Your task to perform on an android device: allow cookies in the chrome app Image 0: 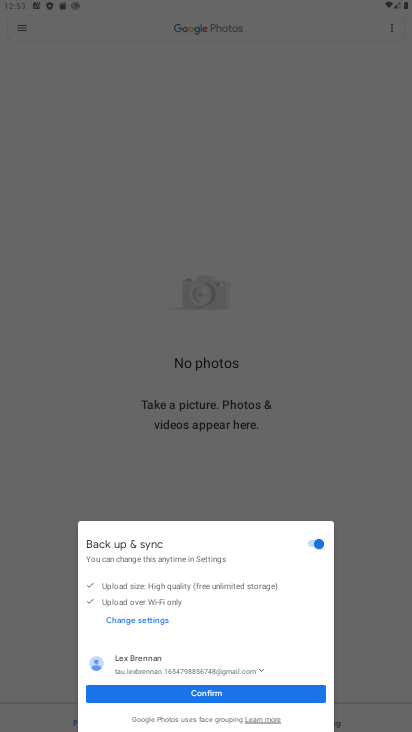
Step 0: click (231, 690)
Your task to perform on an android device: allow cookies in the chrome app Image 1: 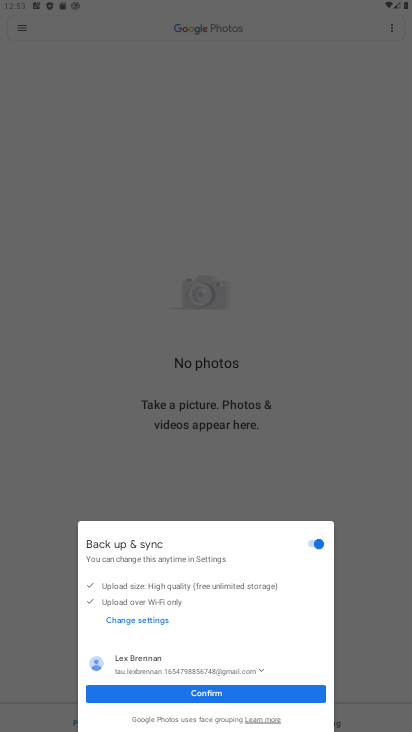
Step 1: click (233, 689)
Your task to perform on an android device: allow cookies in the chrome app Image 2: 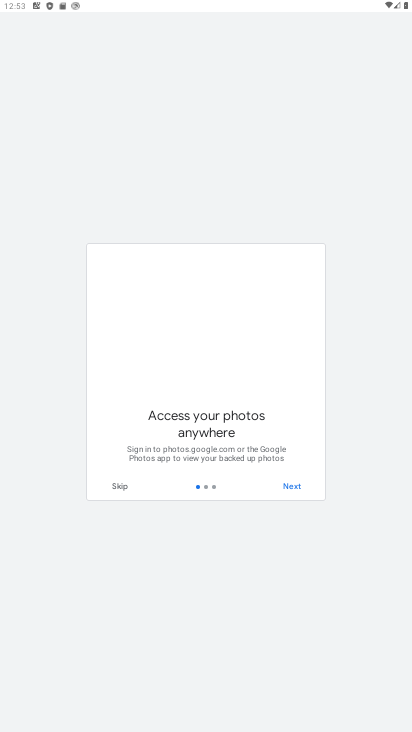
Step 2: press back button
Your task to perform on an android device: allow cookies in the chrome app Image 3: 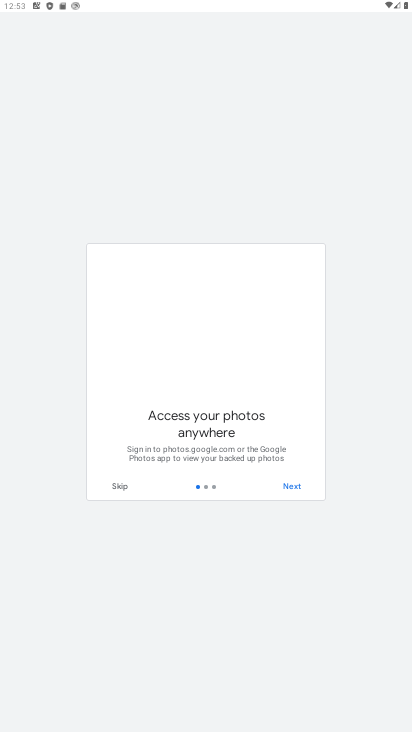
Step 3: press back button
Your task to perform on an android device: allow cookies in the chrome app Image 4: 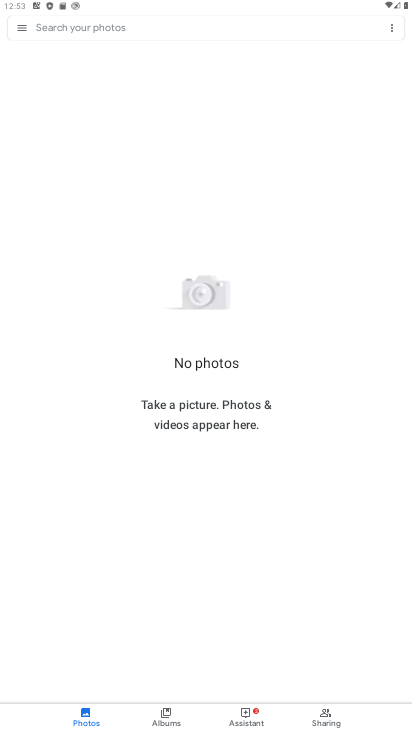
Step 4: press back button
Your task to perform on an android device: allow cookies in the chrome app Image 5: 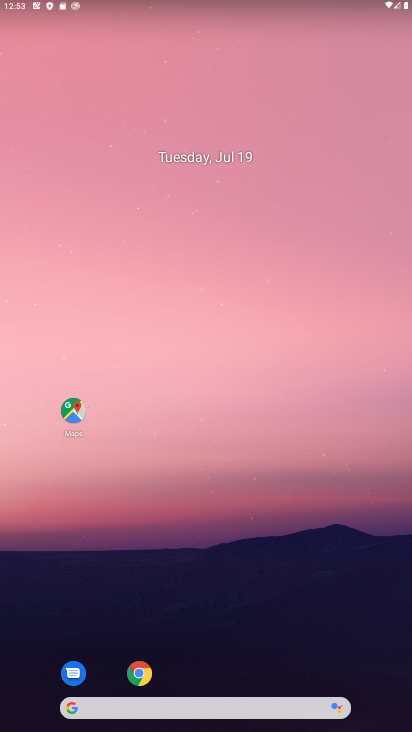
Step 5: drag from (235, 673) to (186, 9)
Your task to perform on an android device: allow cookies in the chrome app Image 6: 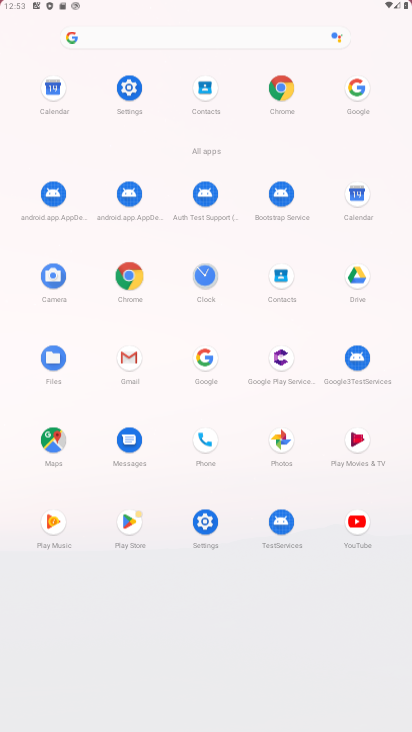
Step 6: drag from (178, 284) to (165, 80)
Your task to perform on an android device: allow cookies in the chrome app Image 7: 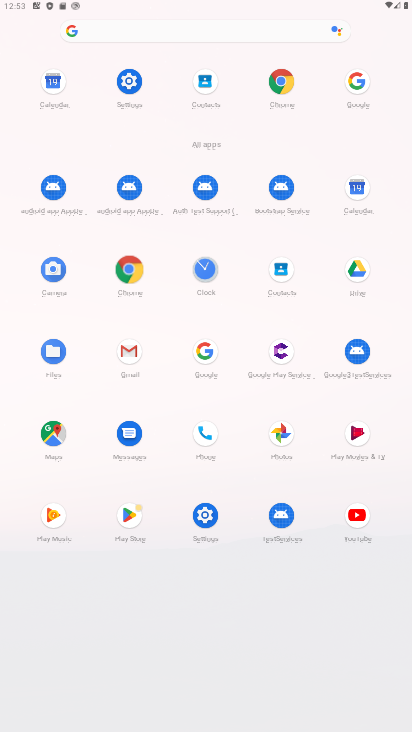
Step 7: drag from (177, 495) to (142, 130)
Your task to perform on an android device: allow cookies in the chrome app Image 8: 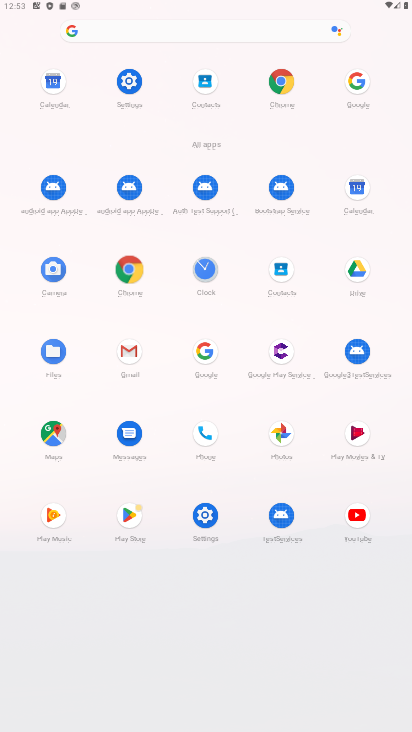
Step 8: click (128, 259)
Your task to perform on an android device: allow cookies in the chrome app Image 9: 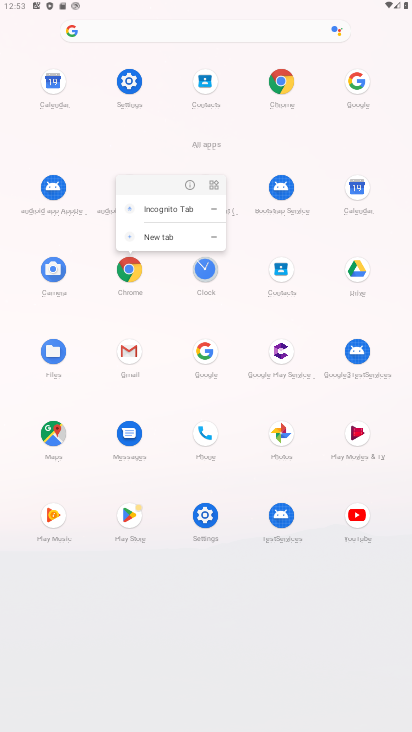
Step 9: click (130, 263)
Your task to perform on an android device: allow cookies in the chrome app Image 10: 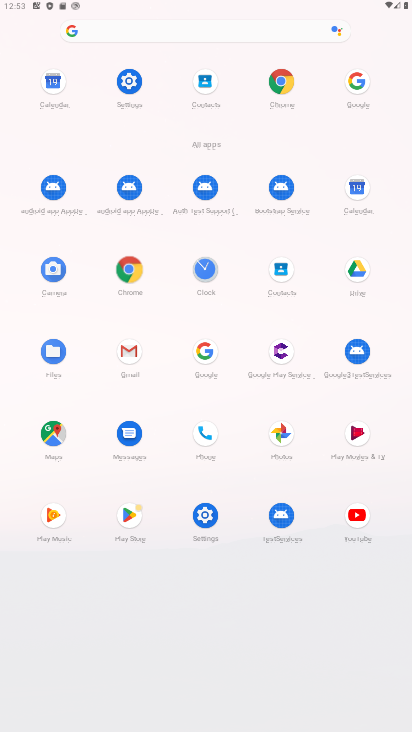
Step 10: click (130, 263)
Your task to perform on an android device: allow cookies in the chrome app Image 11: 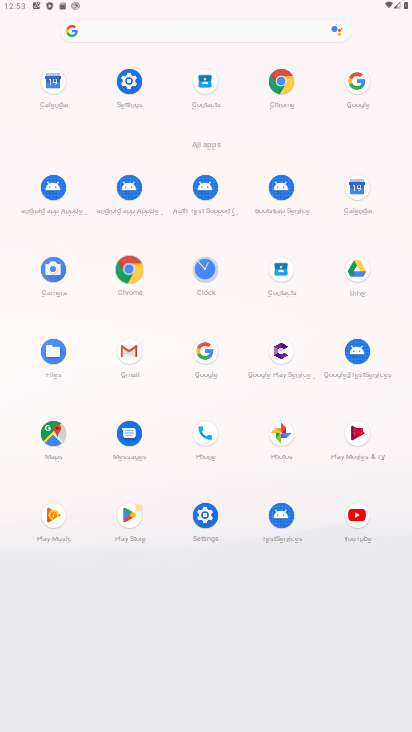
Step 11: click (130, 263)
Your task to perform on an android device: allow cookies in the chrome app Image 12: 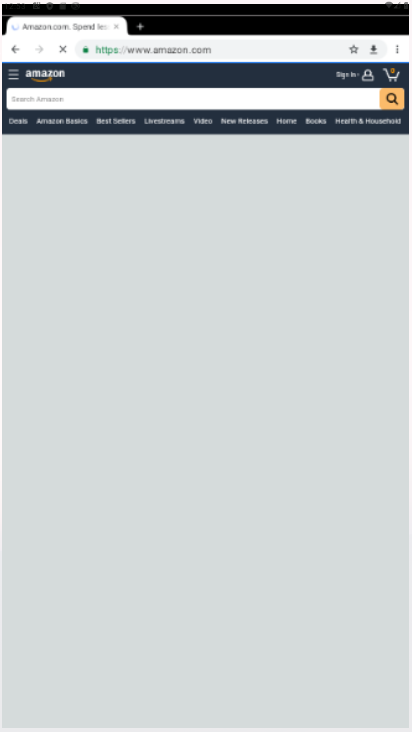
Step 12: click (130, 263)
Your task to perform on an android device: allow cookies in the chrome app Image 13: 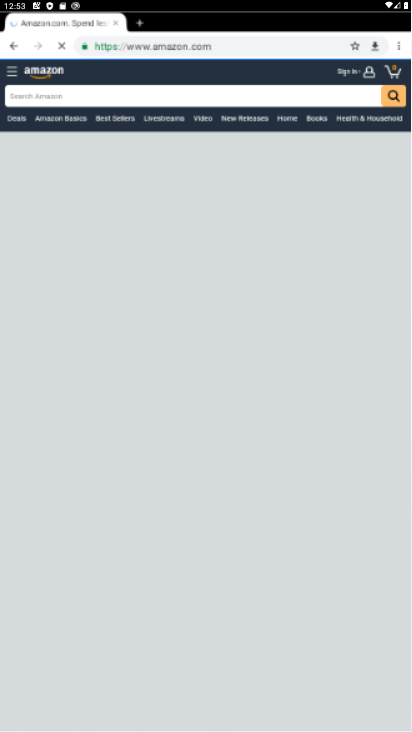
Step 13: click (130, 263)
Your task to perform on an android device: allow cookies in the chrome app Image 14: 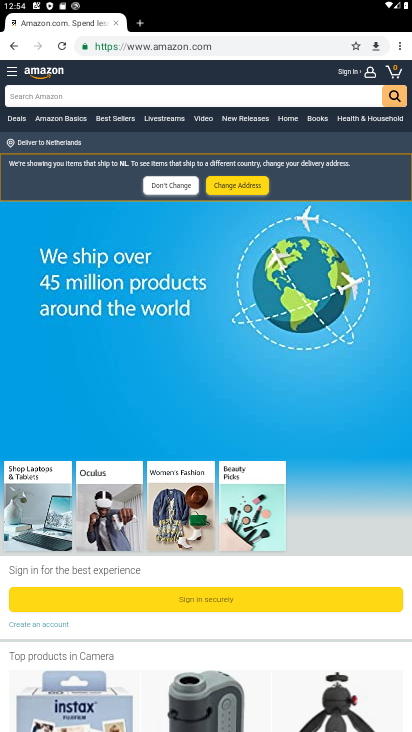
Step 14: click (407, 30)
Your task to perform on an android device: allow cookies in the chrome app Image 15: 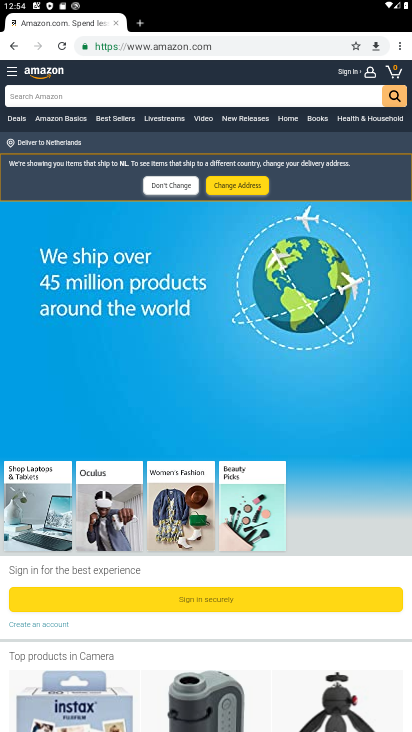
Step 15: drag from (399, 41) to (301, 317)
Your task to perform on an android device: allow cookies in the chrome app Image 16: 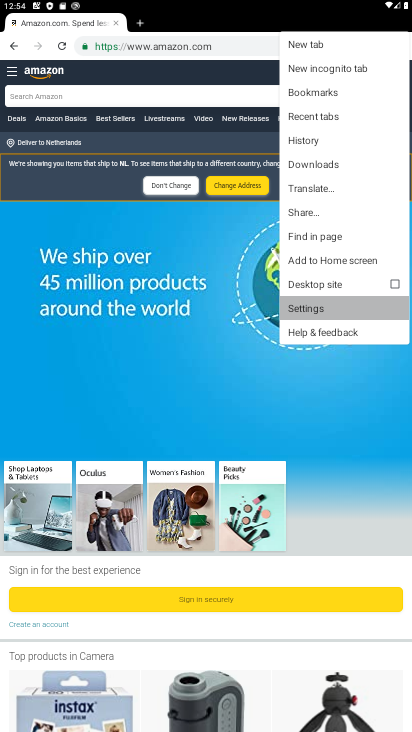
Step 16: click (298, 317)
Your task to perform on an android device: allow cookies in the chrome app Image 17: 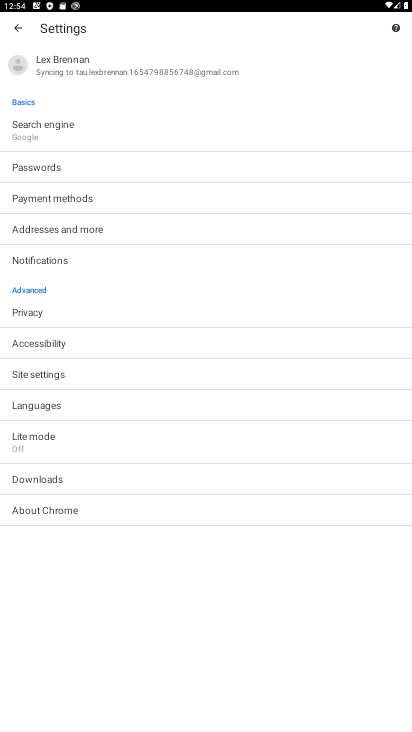
Step 17: click (29, 373)
Your task to perform on an android device: allow cookies in the chrome app Image 18: 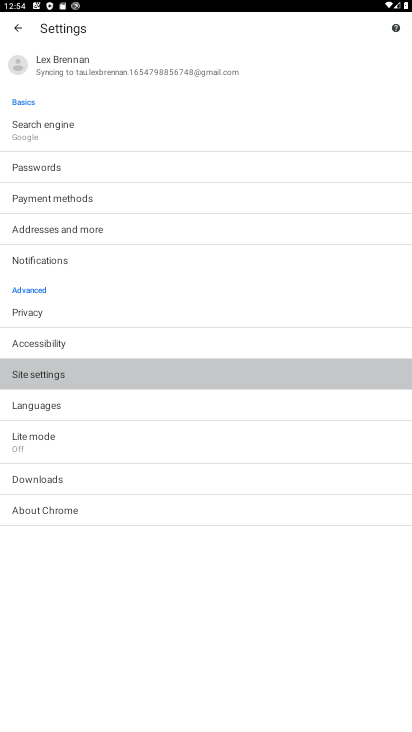
Step 18: click (33, 374)
Your task to perform on an android device: allow cookies in the chrome app Image 19: 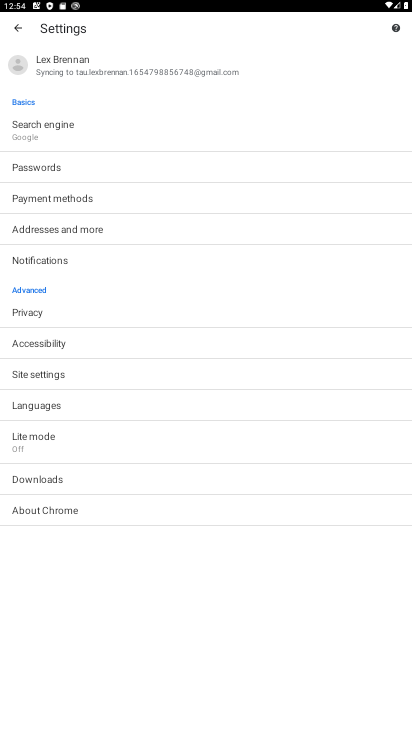
Step 19: click (33, 374)
Your task to perform on an android device: allow cookies in the chrome app Image 20: 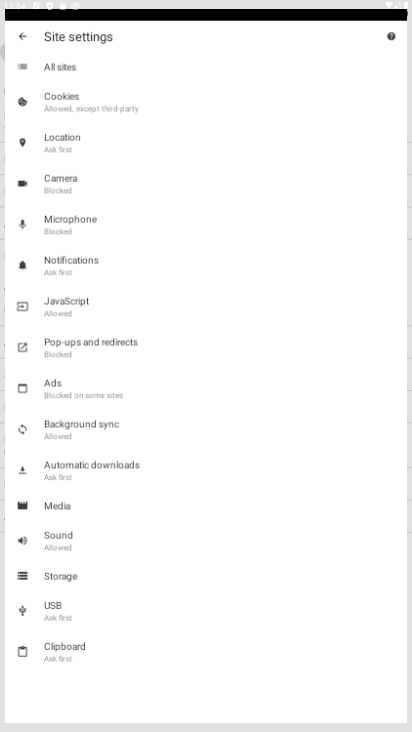
Step 20: click (33, 374)
Your task to perform on an android device: allow cookies in the chrome app Image 21: 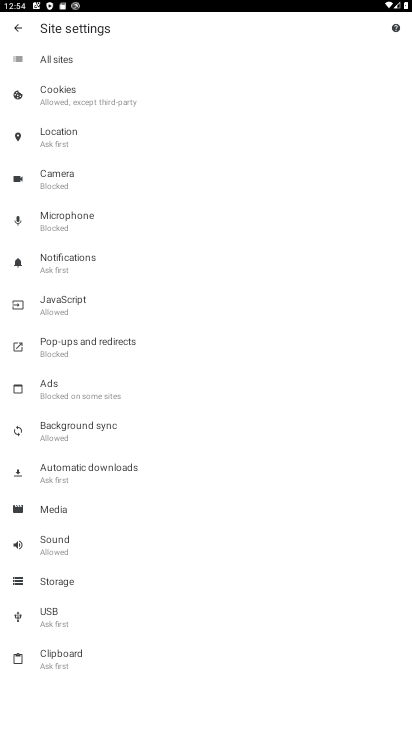
Step 21: click (33, 374)
Your task to perform on an android device: allow cookies in the chrome app Image 22: 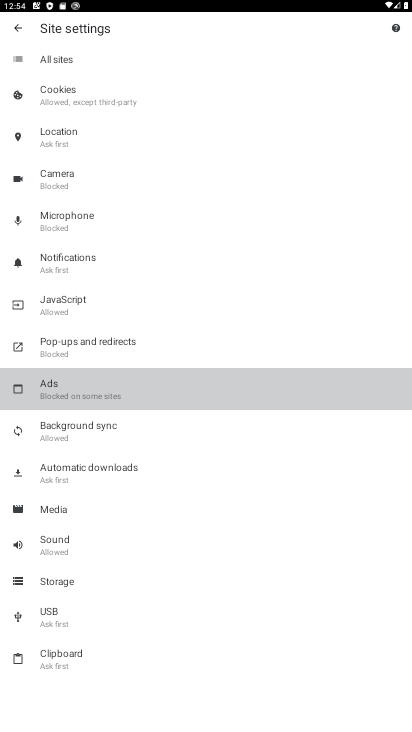
Step 22: click (33, 374)
Your task to perform on an android device: allow cookies in the chrome app Image 23: 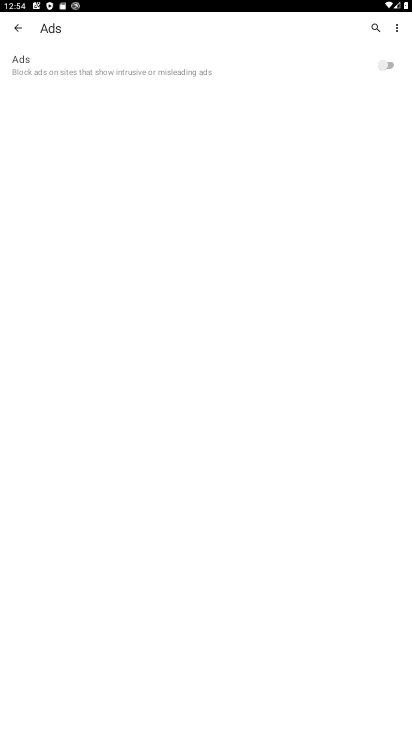
Step 23: click (62, 102)
Your task to perform on an android device: allow cookies in the chrome app Image 24: 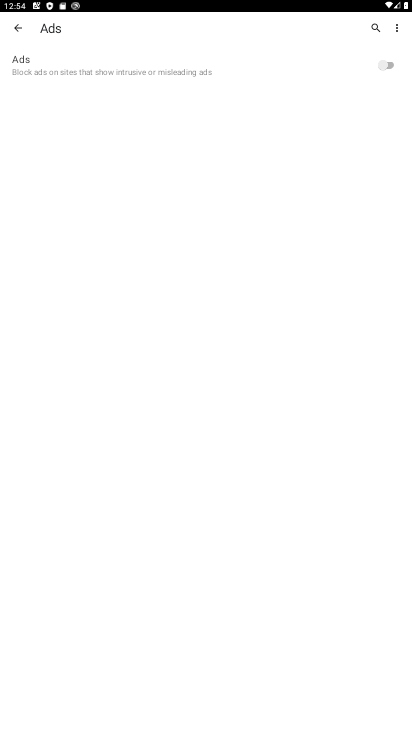
Step 24: click (64, 106)
Your task to perform on an android device: allow cookies in the chrome app Image 25: 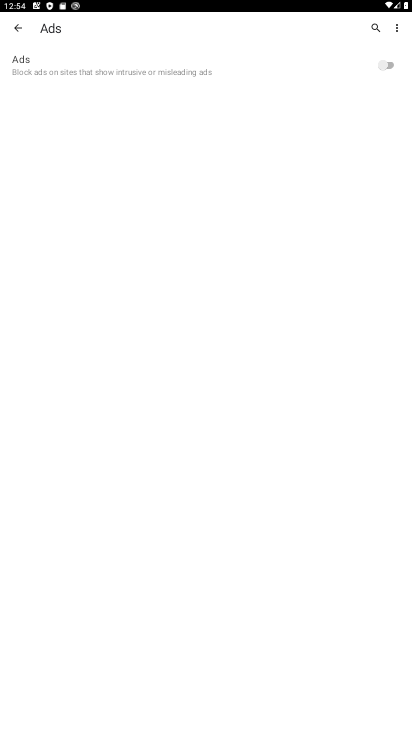
Step 25: click (11, 28)
Your task to perform on an android device: allow cookies in the chrome app Image 26: 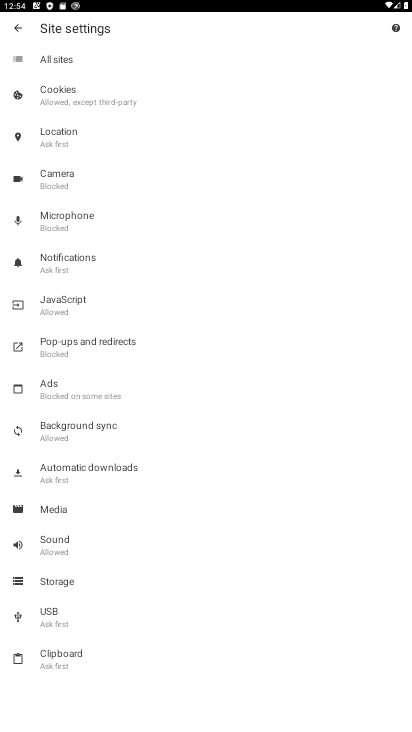
Step 26: click (56, 100)
Your task to perform on an android device: allow cookies in the chrome app Image 27: 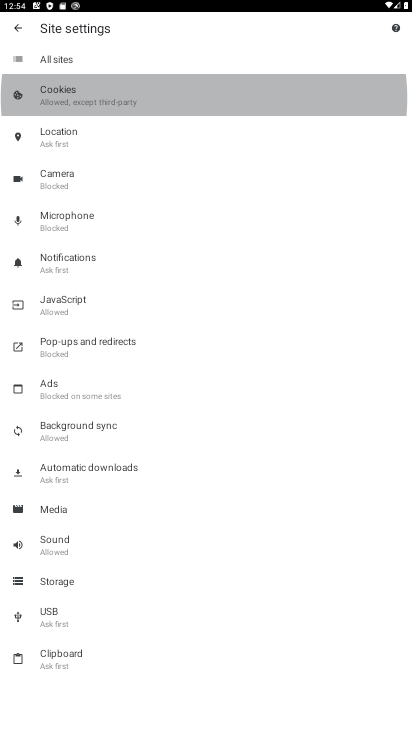
Step 27: click (58, 106)
Your task to perform on an android device: allow cookies in the chrome app Image 28: 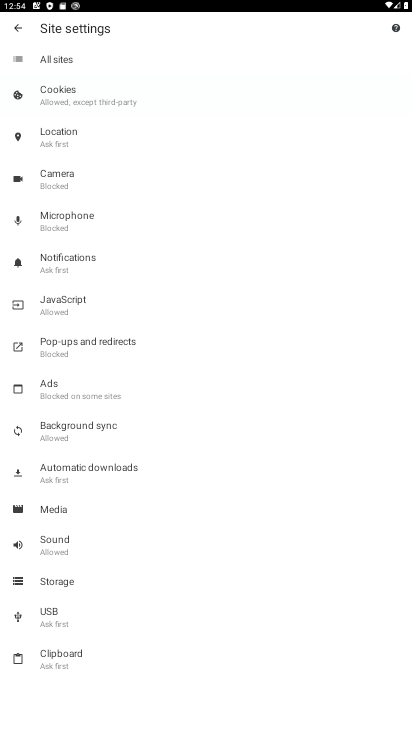
Step 28: click (58, 106)
Your task to perform on an android device: allow cookies in the chrome app Image 29: 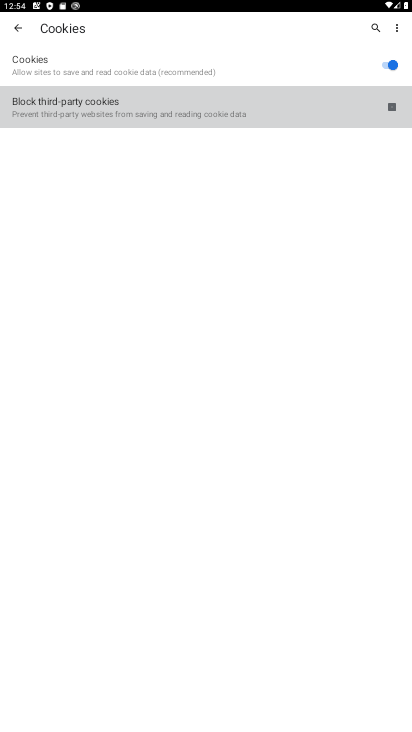
Step 29: click (58, 106)
Your task to perform on an android device: allow cookies in the chrome app Image 30: 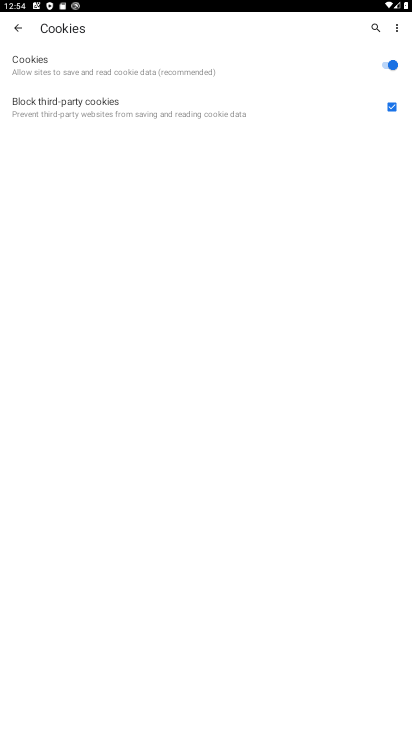
Step 30: task complete